Your task to perform on an android device: delete location history Image 0: 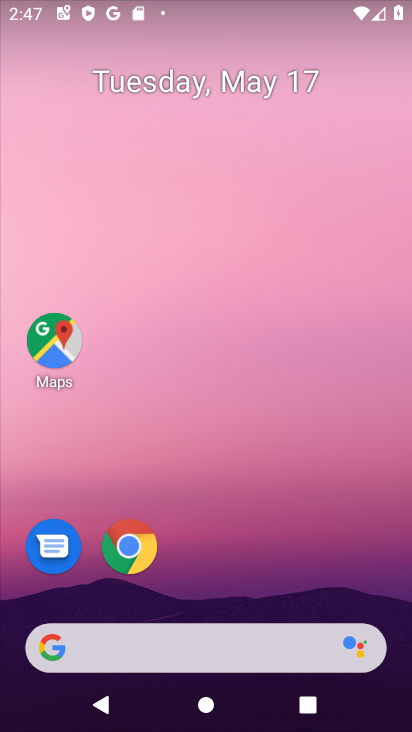
Step 0: drag from (399, 640) to (394, 416)
Your task to perform on an android device: delete location history Image 1: 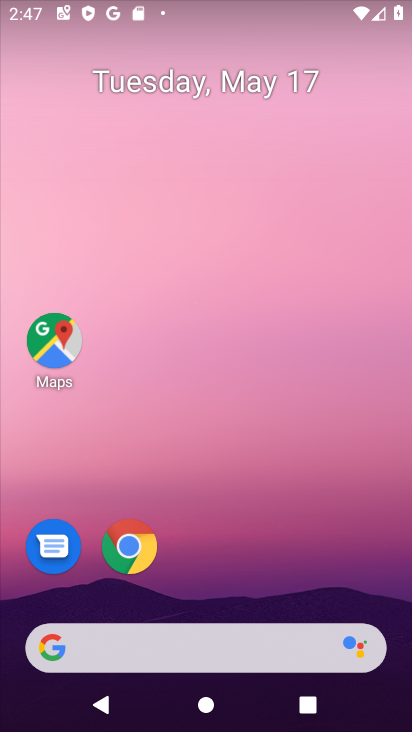
Step 1: drag from (411, 474) to (367, 131)
Your task to perform on an android device: delete location history Image 2: 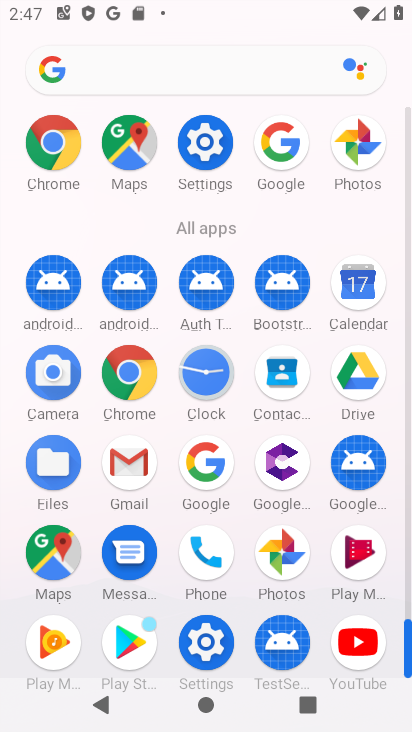
Step 2: click (207, 153)
Your task to perform on an android device: delete location history Image 3: 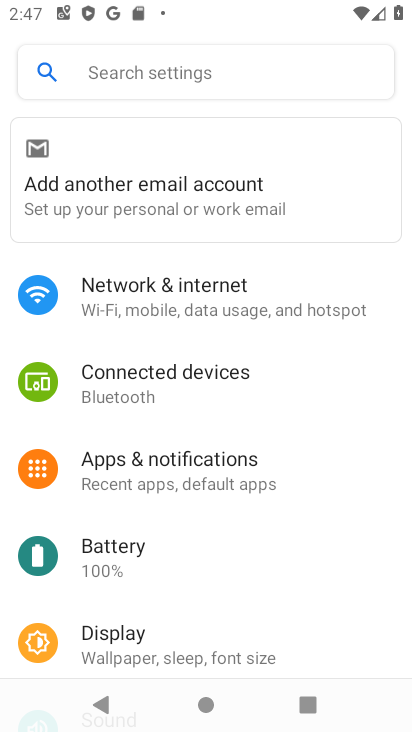
Step 3: drag from (241, 476) to (236, 417)
Your task to perform on an android device: delete location history Image 4: 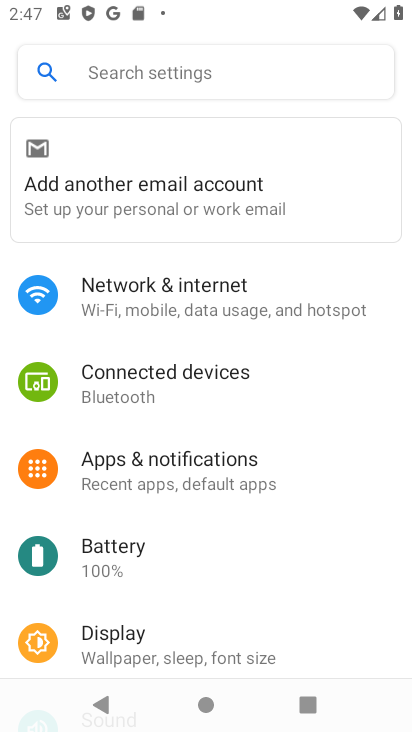
Step 4: drag from (313, 603) to (309, 357)
Your task to perform on an android device: delete location history Image 5: 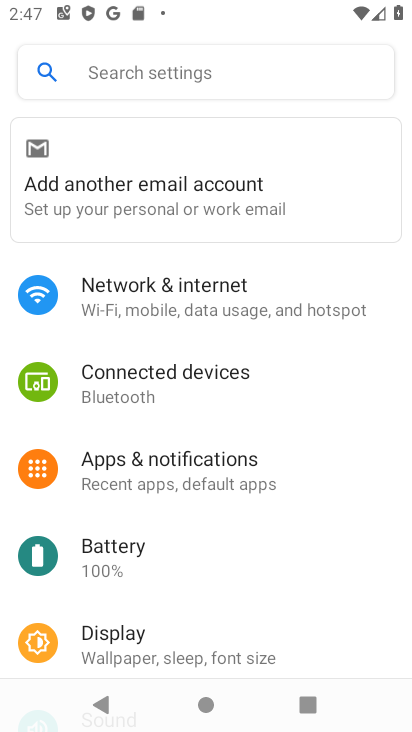
Step 5: click (299, 309)
Your task to perform on an android device: delete location history Image 6: 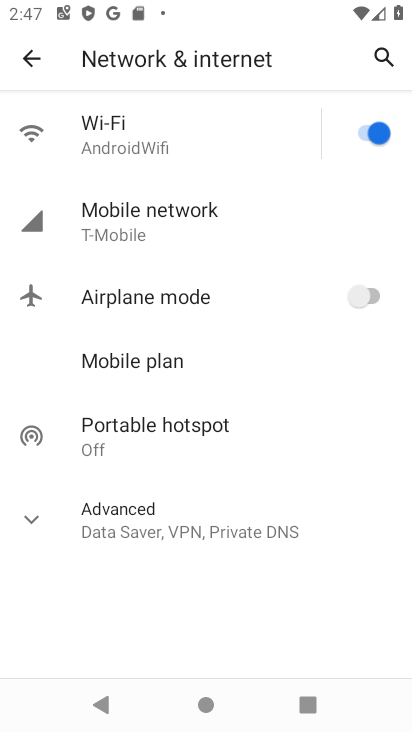
Step 6: click (37, 58)
Your task to perform on an android device: delete location history Image 7: 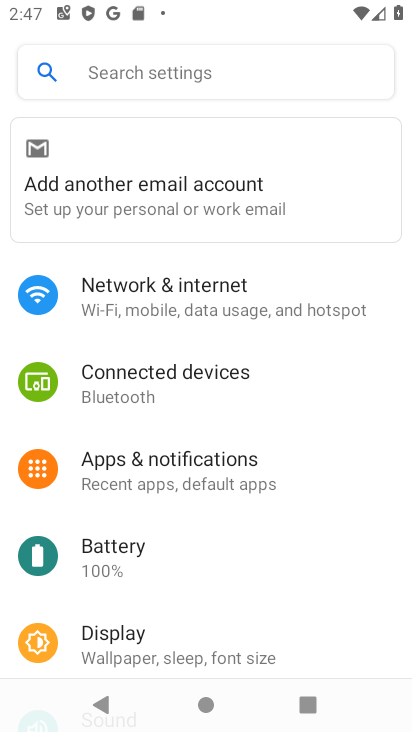
Step 7: drag from (341, 627) to (324, 318)
Your task to perform on an android device: delete location history Image 8: 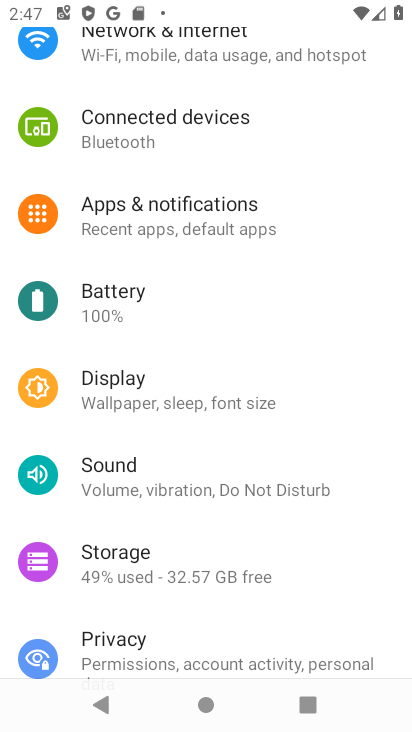
Step 8: drag from (321, 589) to (316, 429)
Your task to perform on an android device: delete location history Image 9: 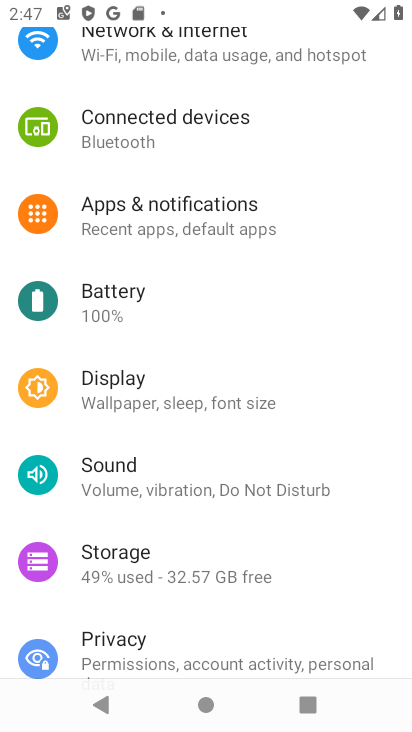
Step 9: drag from (372, 646) to (357, 444)
Your task to perform on an android device: delete location history Image 10: 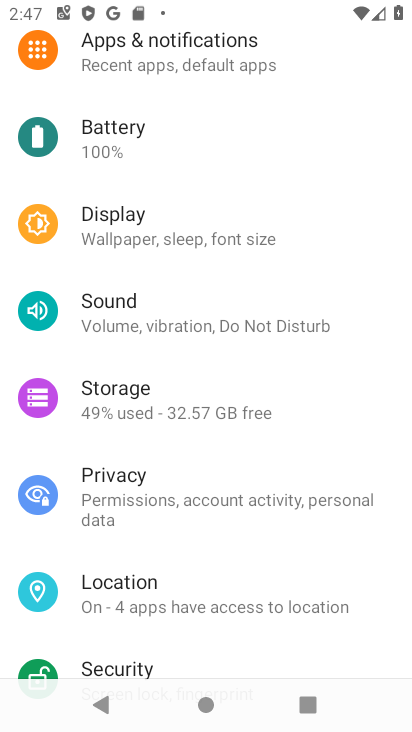
Step 10: click (124, 603)
Your task to perform on an android device: delete location history Image 11: 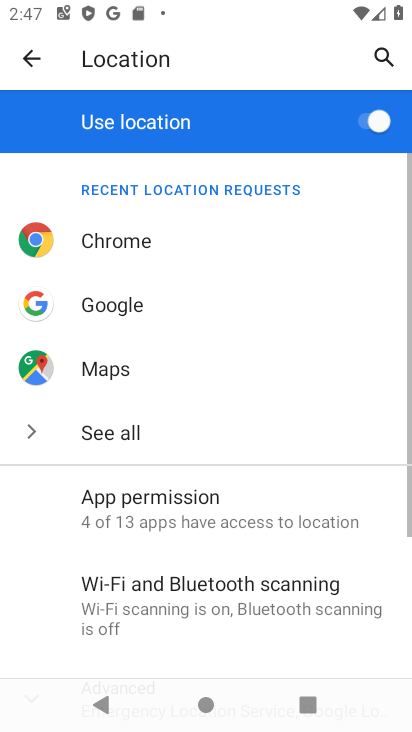
Step 11: drag from (285, 634) to (292, 366)
Your task to perform on an android device: delete location history Image 12: 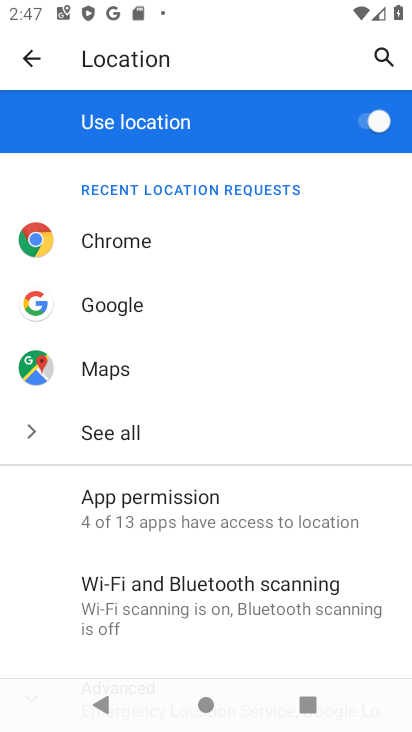
Step 12: press home button
Your task to perform on an android device: delete location history Image 13: 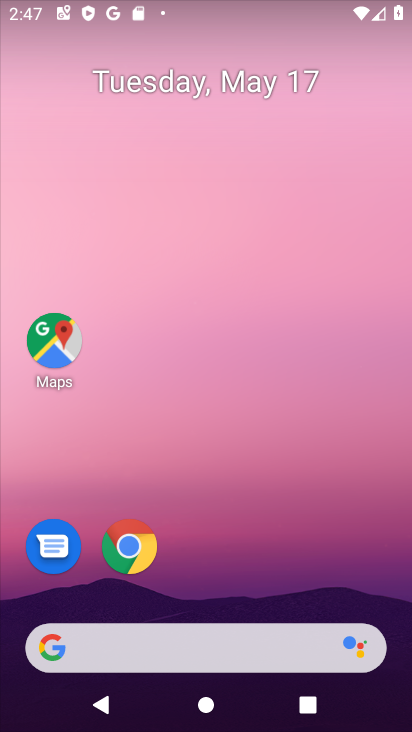
Step 13: drag from (395, 661) to (362, 191)
Your task to perform on an android device: delete location history Image 14: 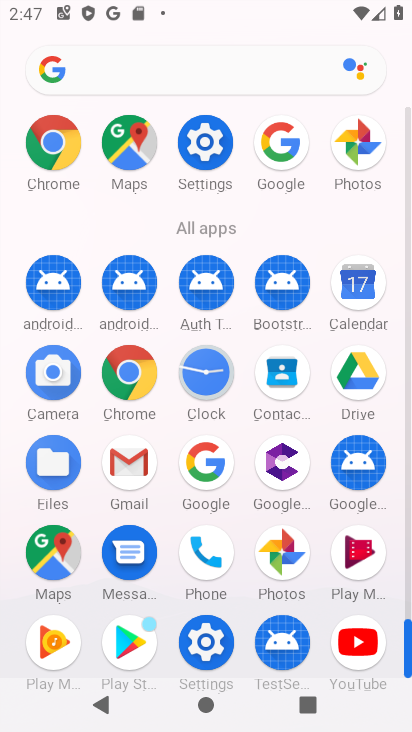
Step 14: click (128, 152)
Your task to perform on an android device: delete location history Image 15: 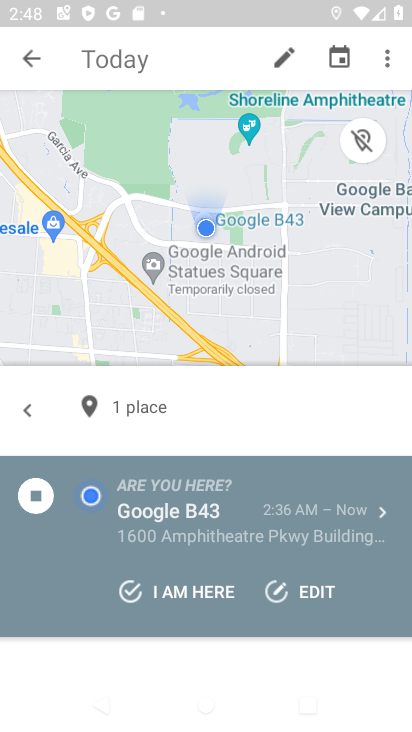
Step 15: click (391, 57)
Your task to perform on an android device: delete location history Image 16: 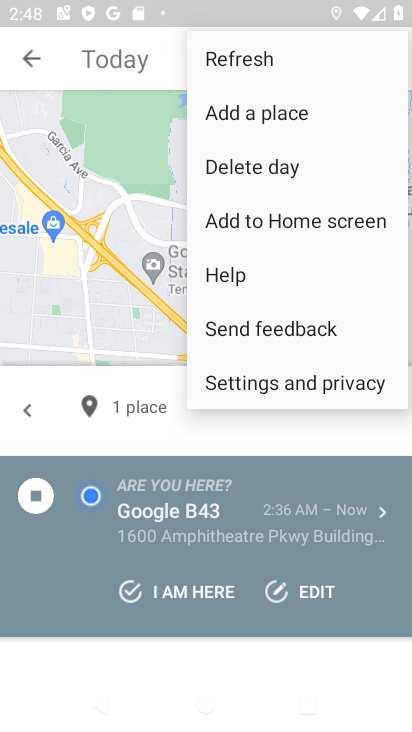
Step 16: click (301, 390)
Your task to perform on an android device: delete location history Image 17: 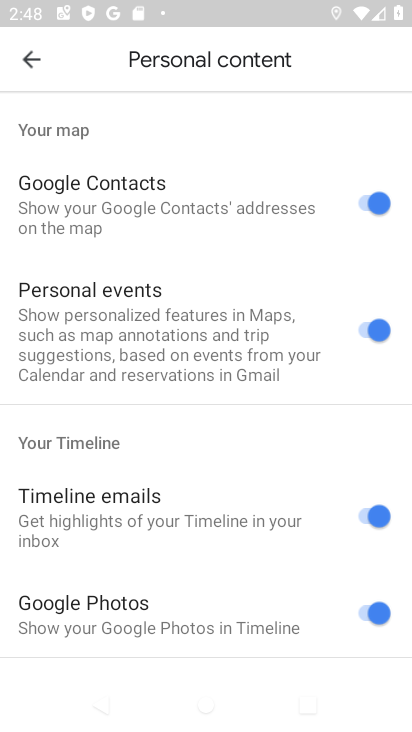
Step 17: drag from (221, 611) to (194, 367)
Your task to perform on an android device: delete location history Image 18: 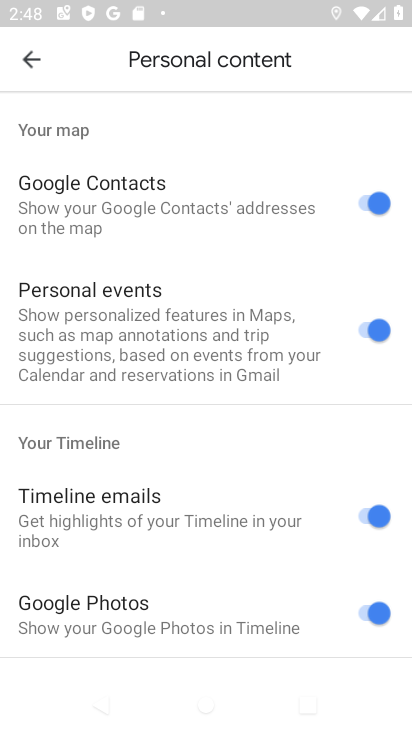
Step 18: click (167, 349)
Your task to perform on an android device: delete location history Image 19: 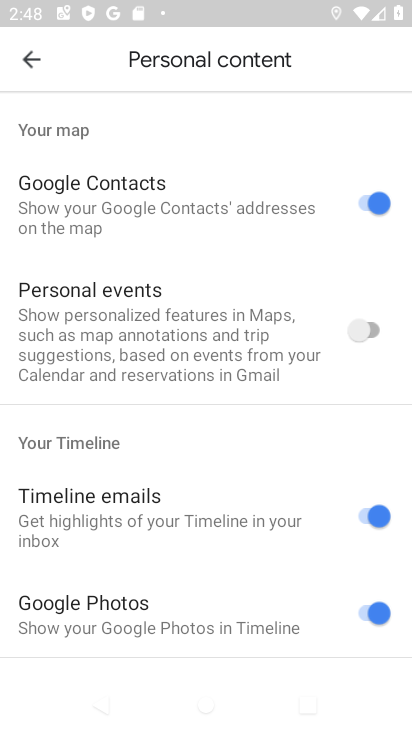
Step 19: drag from (135, 578) to (155, 363)
Your task to perform on an android device: delete location history Image 20: 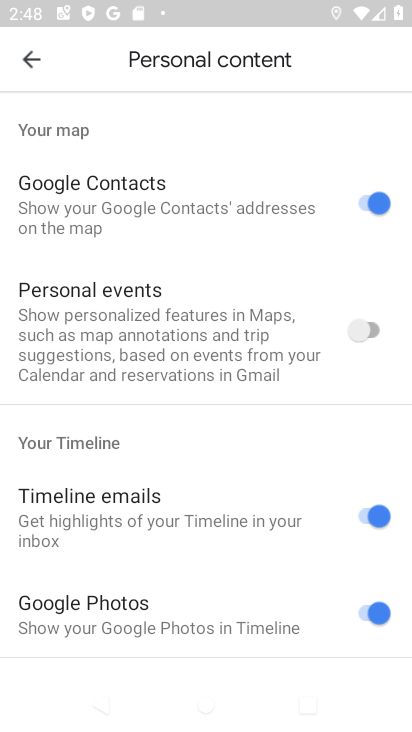
Step 20: drag from (209, 590) to (245, 336)
Your task to perform on an android device: delete location history Image 21: 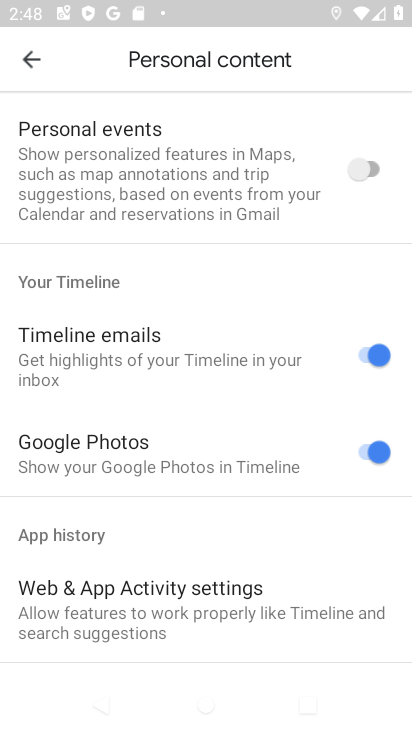
Step 21: click (226, 338)
Your task to perform on an android device: delete location history Image 22: 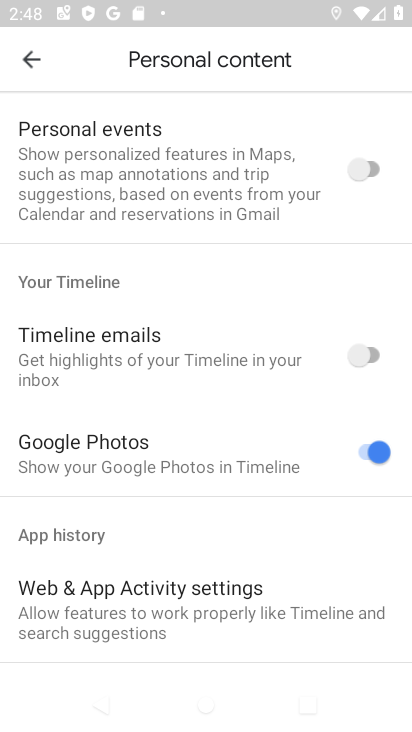
Step 22: click (371, 356)
Your task to perform on an android device: delete location history Image 23: 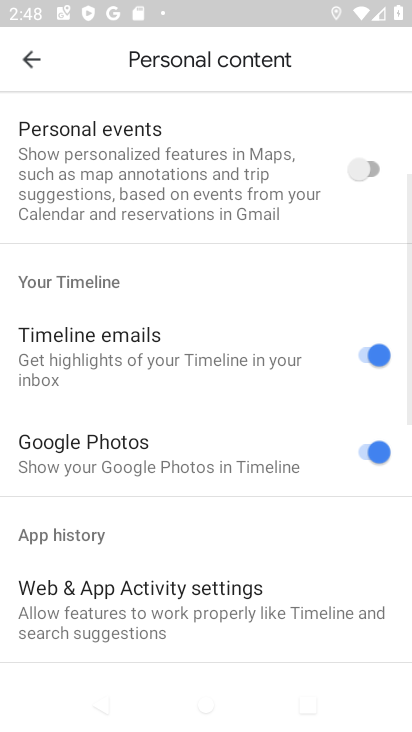
Step 23: drag from (221, 644) to (247, 339)
Your task to perform on an android device: delete location history Image 24: 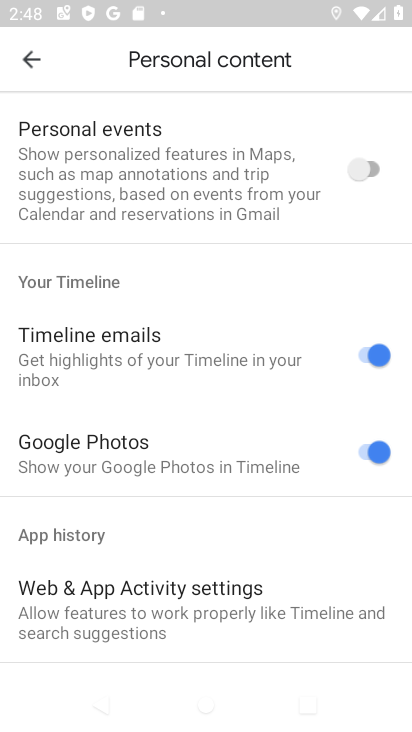
Step 24: drag from (347, 640) to (340, 274)
Your task to perform on an android device: delete location history Image 25: 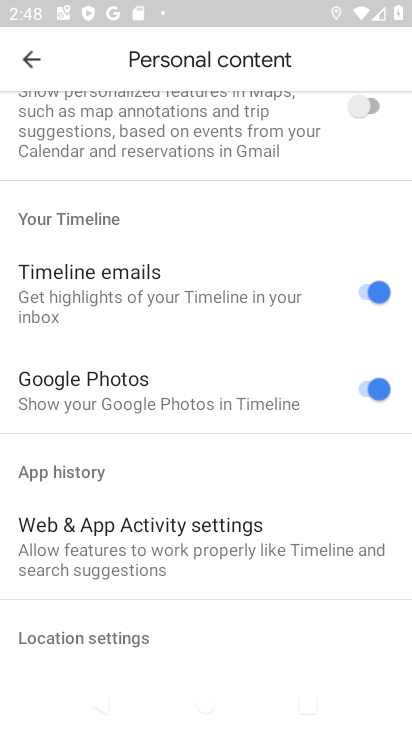
Step 25: drag from (250, 627) to (236, 369)
Your task to perform on an android device: delete location history Image 26: 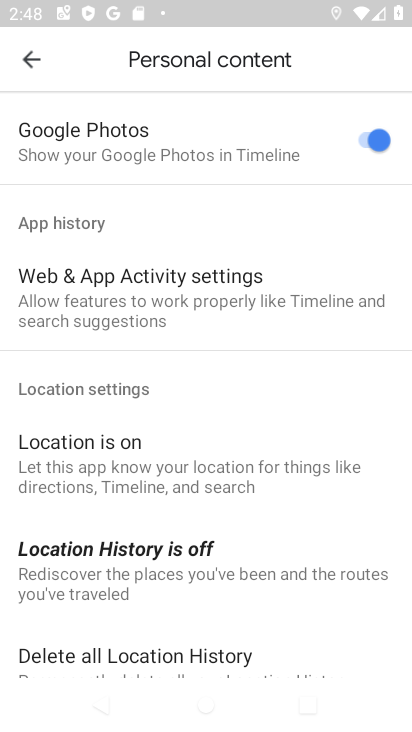
Step 26: drag from (216, 610) to (258, 349)
Your task to perform on an android device: delete location history Image 27: 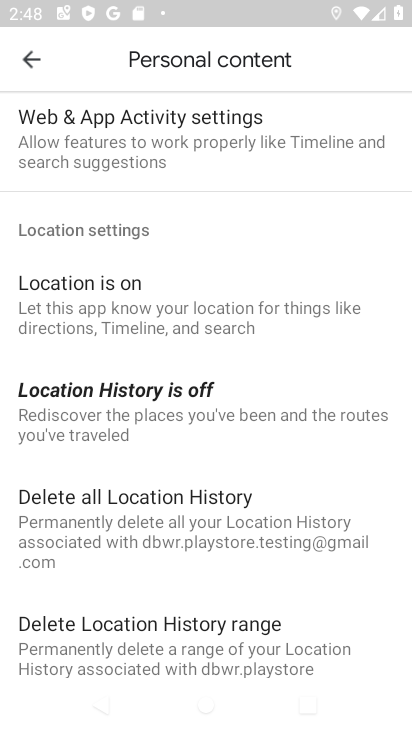
Step 27: click (89, 501)
Your task to perform on an android device: delete location history Image 28: 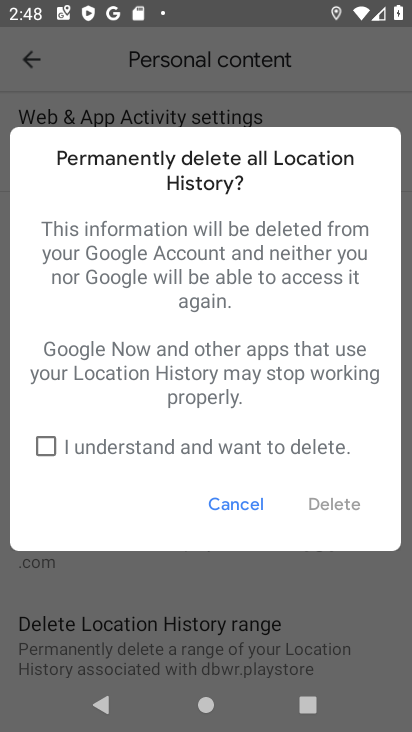
Step 28: click (51, 455)
Your task to perform on an android device: delete location history Image 29: 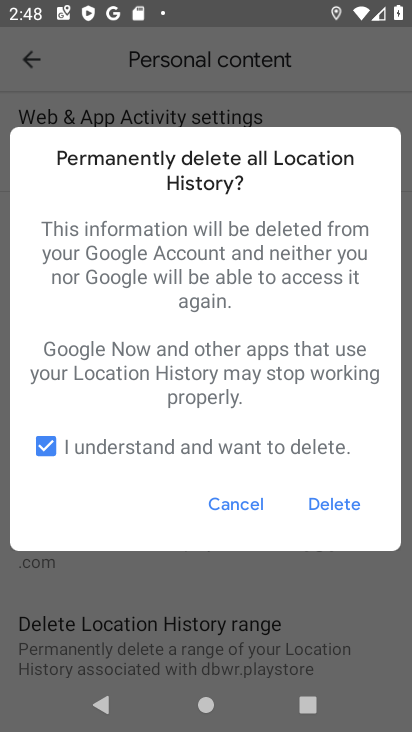
Step 29: click (348, 504)
Your task to perform on an android device: delete location history Image 30: 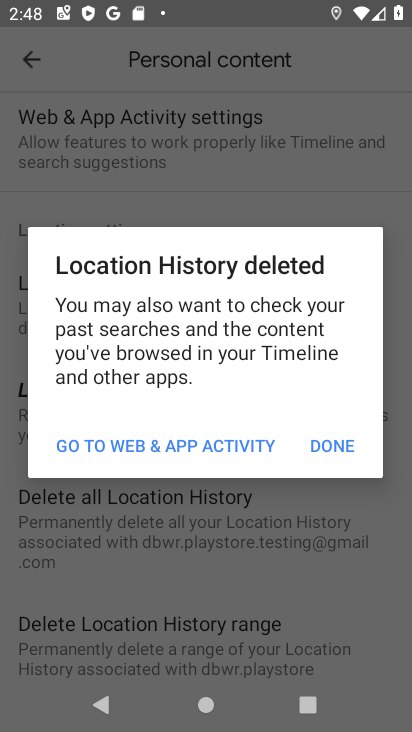
Step 30: click (327, 444)
Your task to perform on an android device: delete location history Image 31: 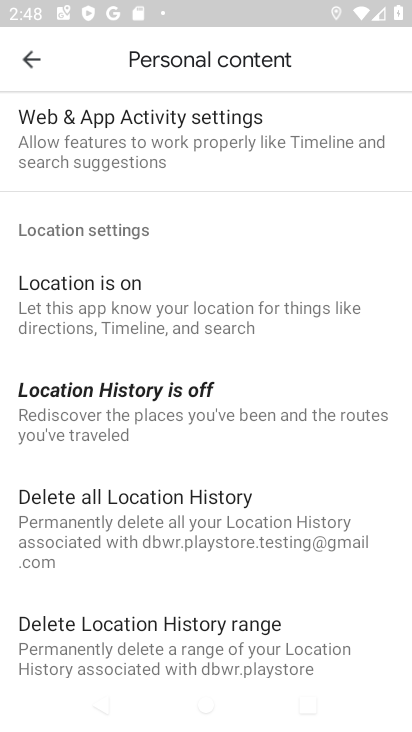
Step 31: task complete